Your task to perform on an android device: open a new tab in the chrome app Image 0: 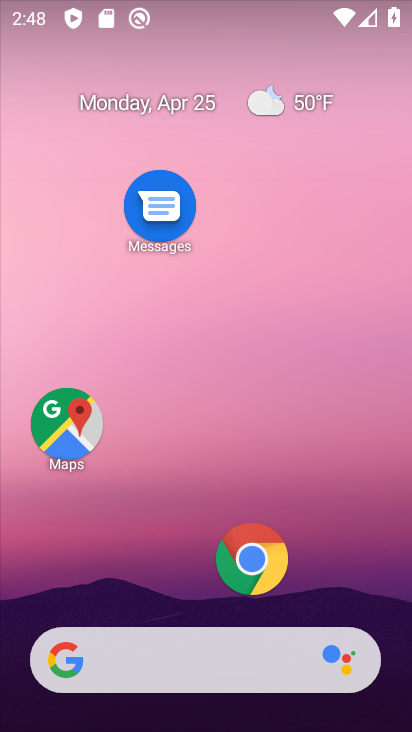
Step 0: click (255, 554)
Your task to perform on an android device: open a new tab in the chrome app Image 1: 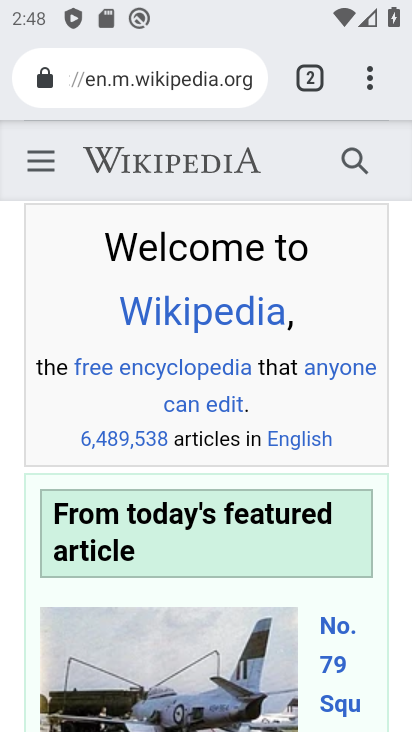
Step 1: click (374, 87)
Your task to perform on an android device: open a new tab in the chrome app Image 2: 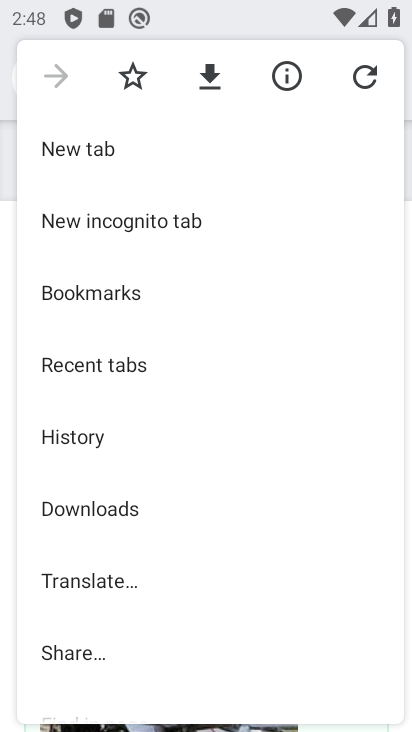
Step 2: click (85, 143)
Your task to perform on an android device: open a new tab in the chrome app Image 3: 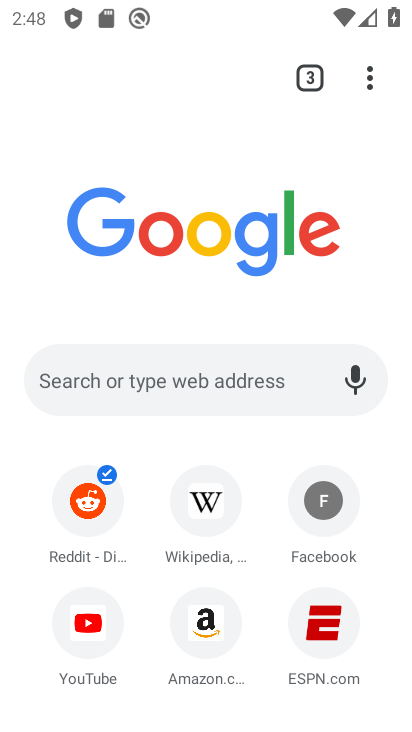
Step 3: task complete